Your task to perform on an android device: Go to Yahoo.com Image 0: 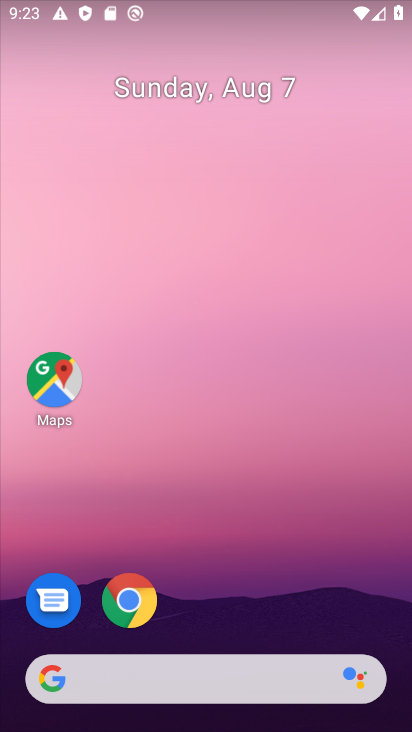
Step 0: drag from (253, 631) to (273, 86)
Your task to perform on an android device: Go to Yahoo.com Image 1: 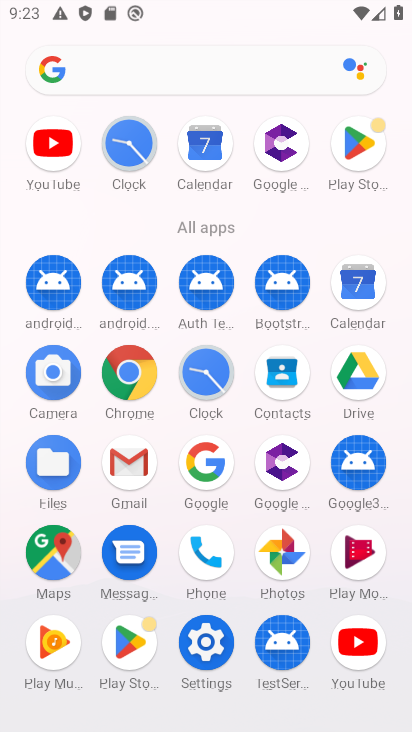
Step 1: click (133, 390)
Your task to perform on an android device: Go to Yahoo.com Image 2: 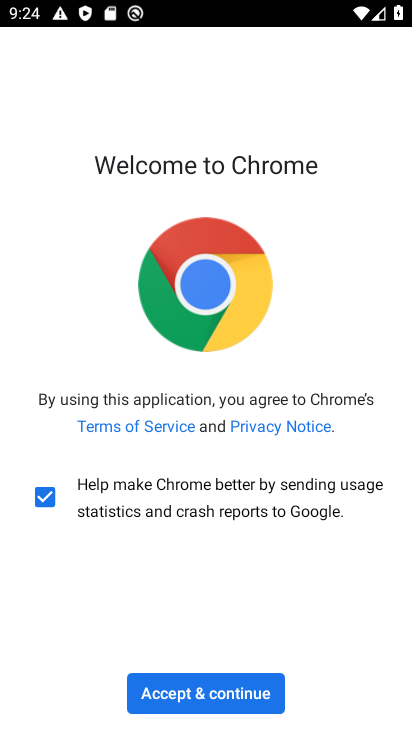
Step 2: click (176, 695)
Your task to perform on an android device: Go to Yahoo.com Image 3: 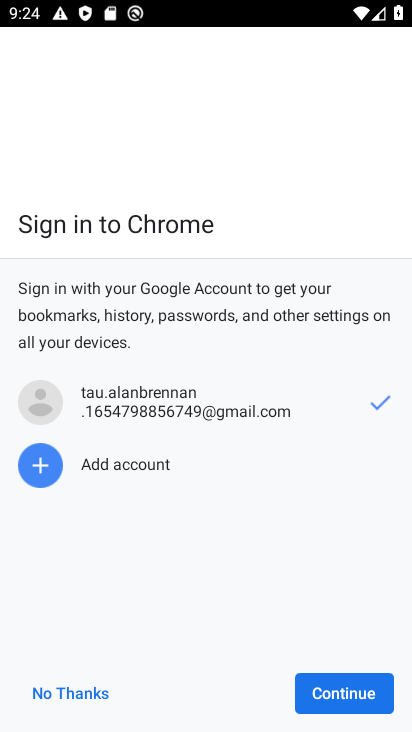
Step 3: click (326, 705)
Your task to perform on an android device: Go to Yahoo.com Image 4: 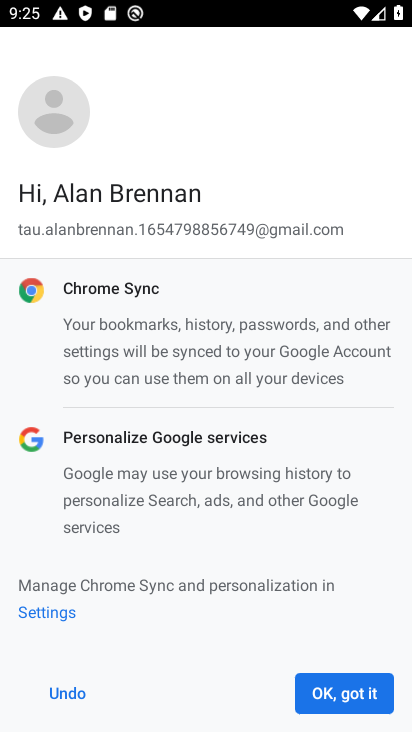
Step 4: click (332, 684)
Your task to perform on an android device: Go to Yahoo.com Image 5: 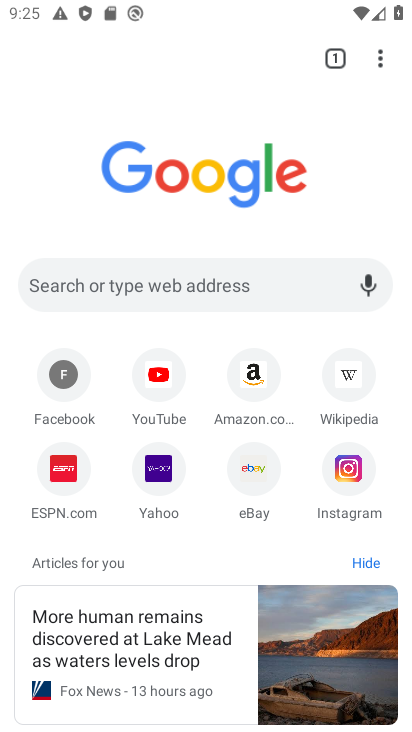
Step 5: click (175, 290)
Your task to perform on an android device: Go to Yahoo.com Image 6: 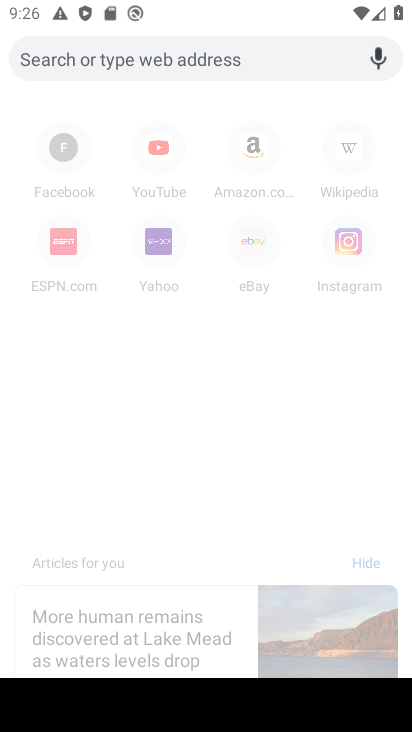
Step 6: type "yahoo.com"
Your task to perform on an android device: Go to Yahoo.com Image 7: 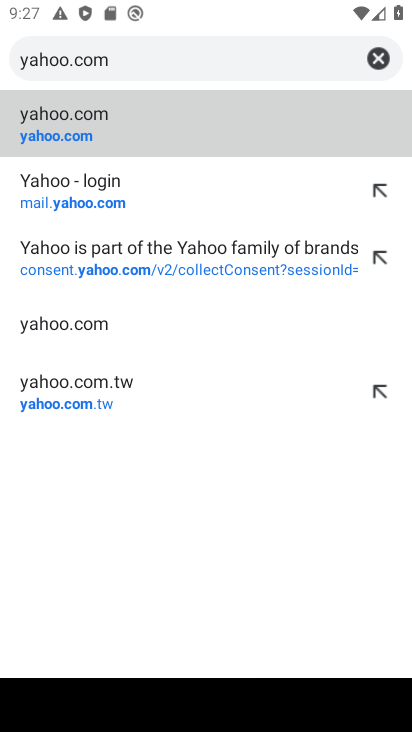
Step 7: click (173, 126)
Your task to perform on an android device: Go to Yahoo.com Image 8: 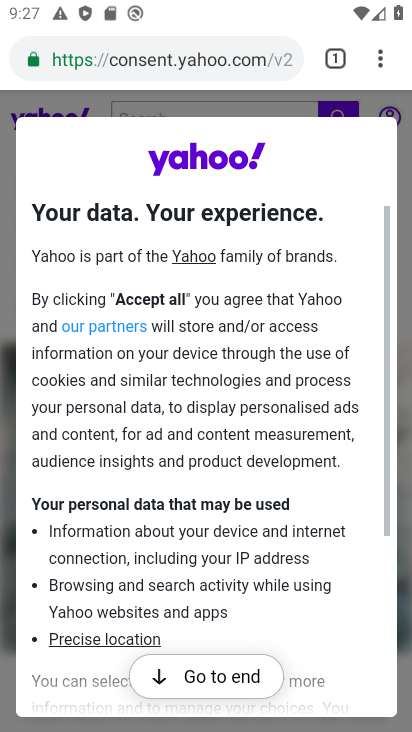
Step 8: task complete